Your task to perform on an android device: toggle show notifications on the lock screen Image 0: 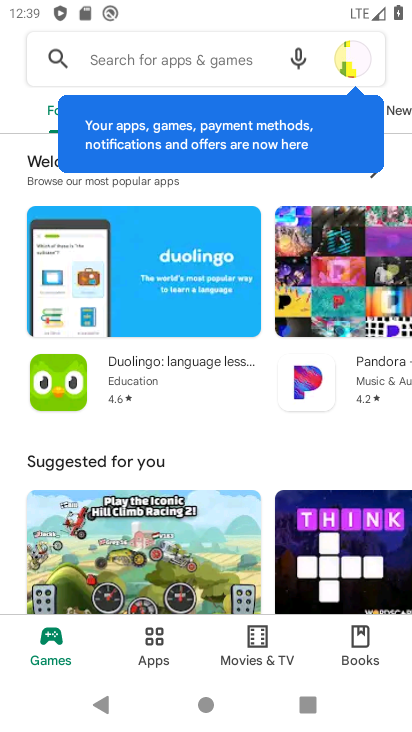
Step 0: press home button
Your task to perform on an android device: toggle show notifications on the lock screen Image 1: 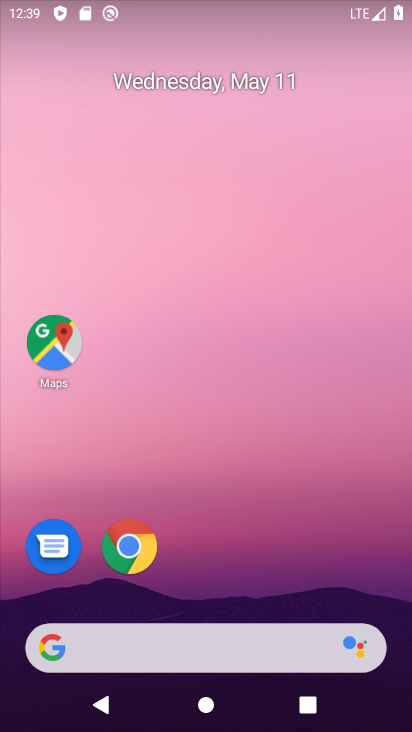
Step 1: drag from (262, 655) to (183, 235)
Your task to perform on an android device: toggle show notifications on the lock screen Image 2: 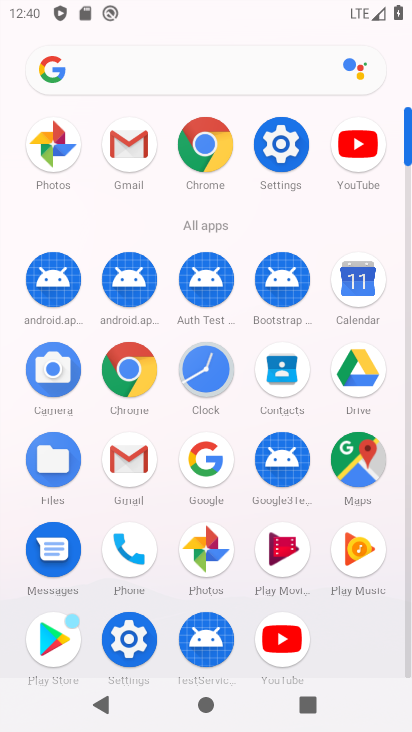
Step 2: click (143, 626)
Your task to perform on an android device: toggle show notifications on the lock screen Image 3: 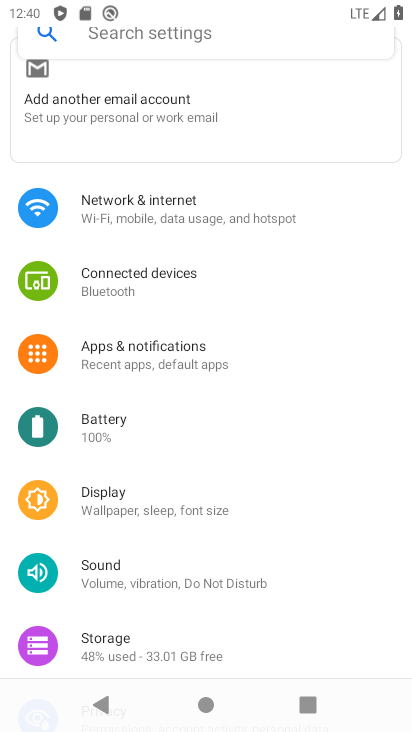
Step 3: click (173, 38)
Your task to perform on an android device: toggle show notifications on the lock screen Image 4: 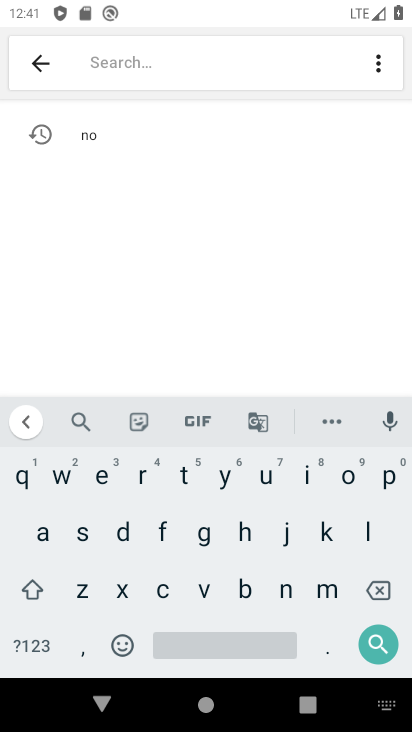
Step 4: click (100, 140)
Your task to perform on an android device: toggle show notifications on the lock screen Image 5: 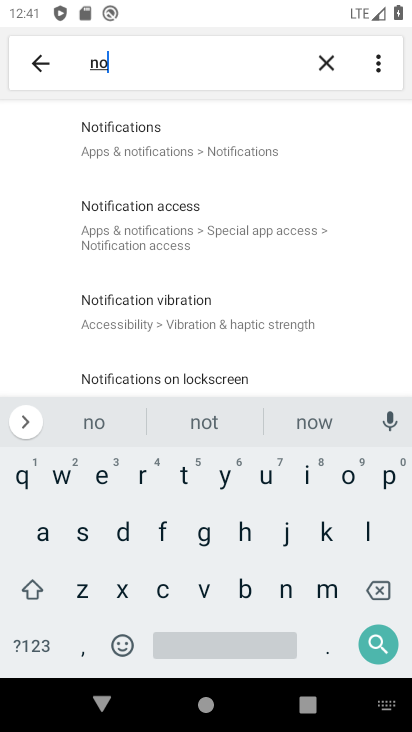
Step 5: click (264, 141)
Your task to perform on an android device: toggle show notifications on the lock screen Image 6: 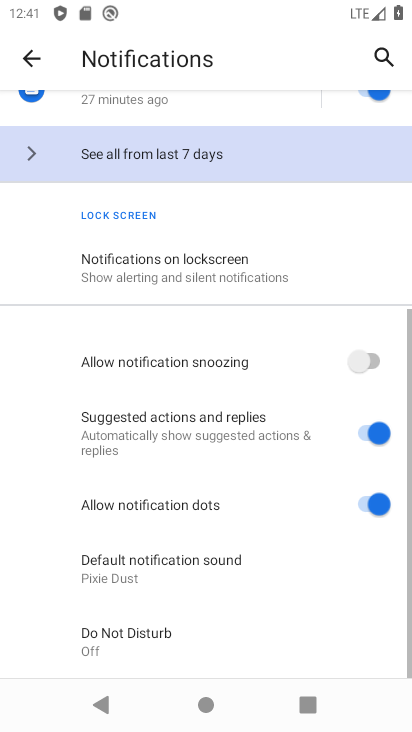
Step 6: click (136, 268)
Your task to perform on an android device: toggle show notifications on the lock screen Image 7: 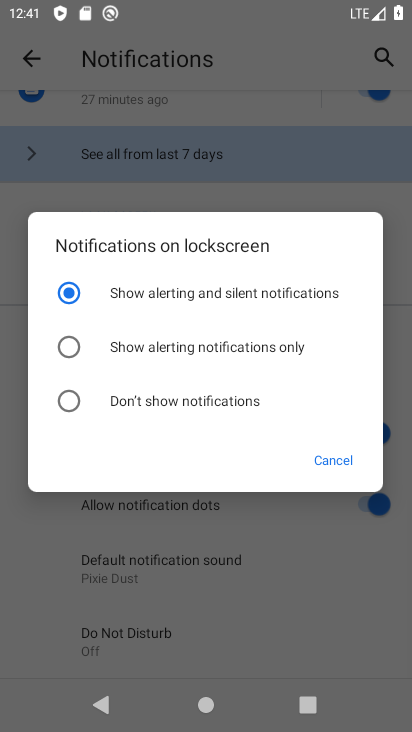
Step 7: task complete